Your task to perform on an android device: Open sound settings Image 0: 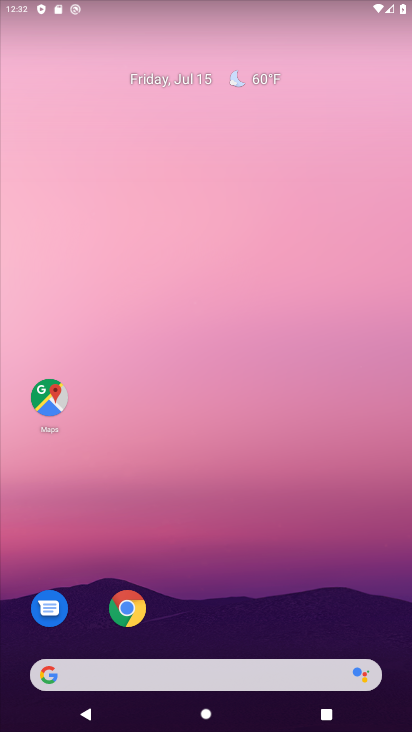
Step 0: drag from (277, 68) to (285, 484)
Your task to perform on an android device: Open sound settings Image 1: 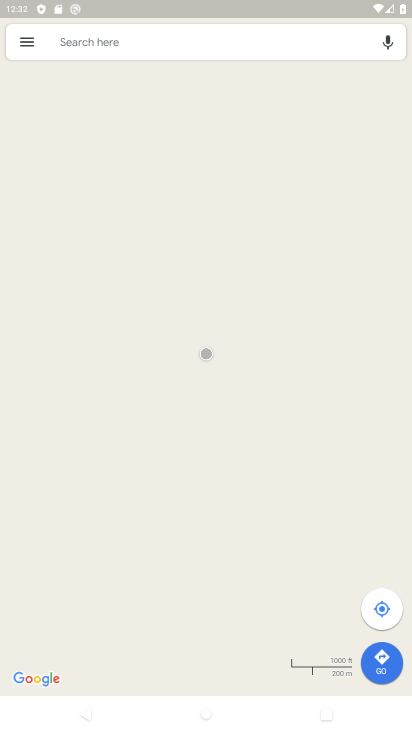
Step 1: drag from (225, 0) to (235, 392)
Your task to perform on an android device: Open sound settings Image 2: 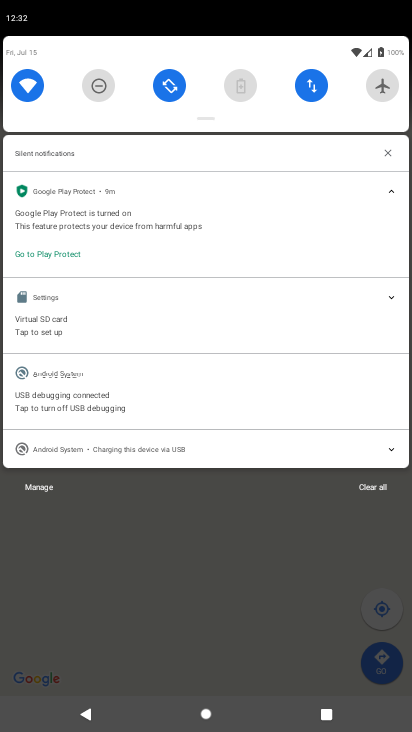
Step 2: press home button
Your task to perform on an android device: Open sound settings Image 3: 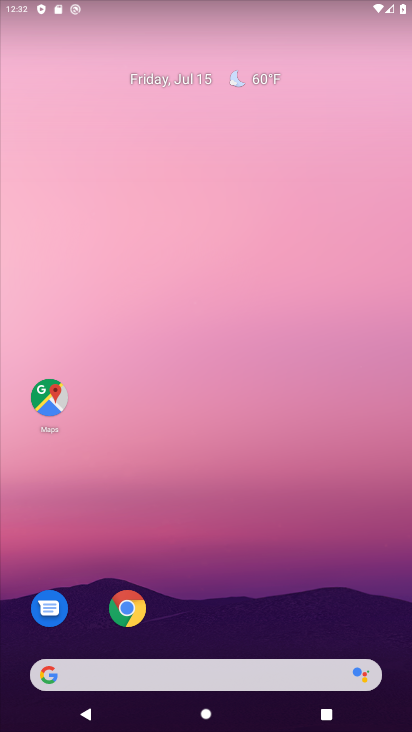
Step 3: drag from (231, 599) to (237, 119)
Your task to perform on an android device: Open sound settings Image 4: 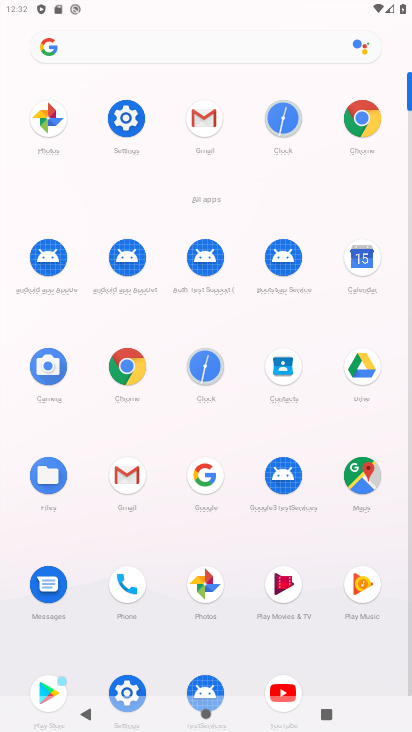
Step 4: click (123, 112)
Your task to perform on an android device: Open sound settings Image 5: 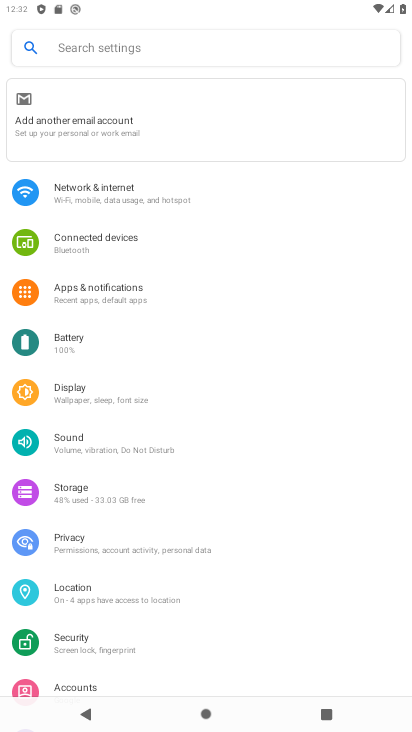
Step 5: click (59, 438)
Your task to perform on an android device: Open sound settings Image 6: 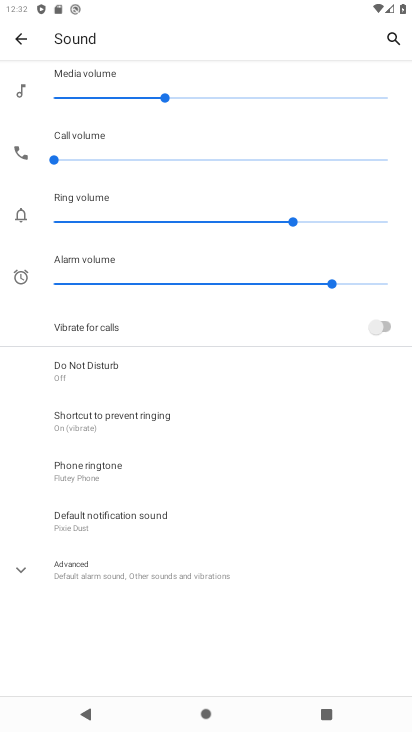
Step 6: task complete